Your task to perform on an android device: Open Chrome and go to settings Image 0: 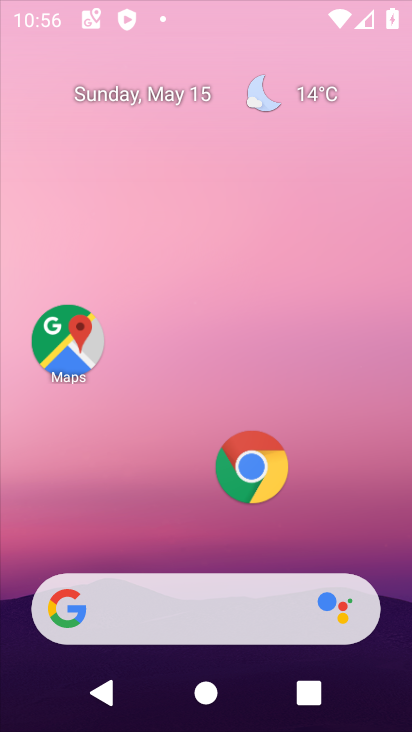
Step 0: drag from (225, 475) to (394, 378)
Your task to perform on an android device: Open Chrome and go to settings Image 1: 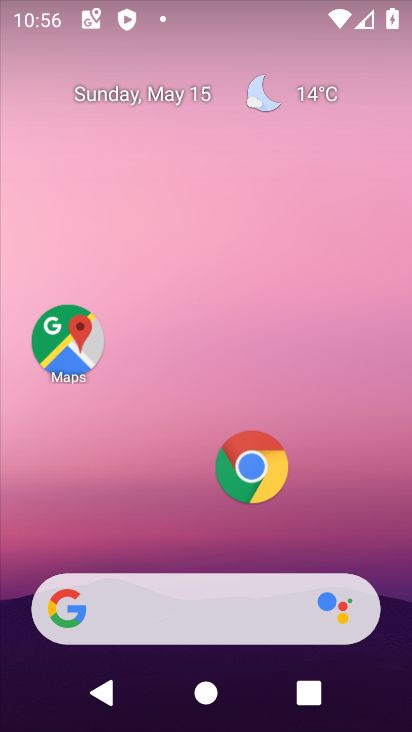
Step 1: drag from (218, 567) to (203, 136)
Your task to perform on an android device: Open Chrome and go to settings Image 2: 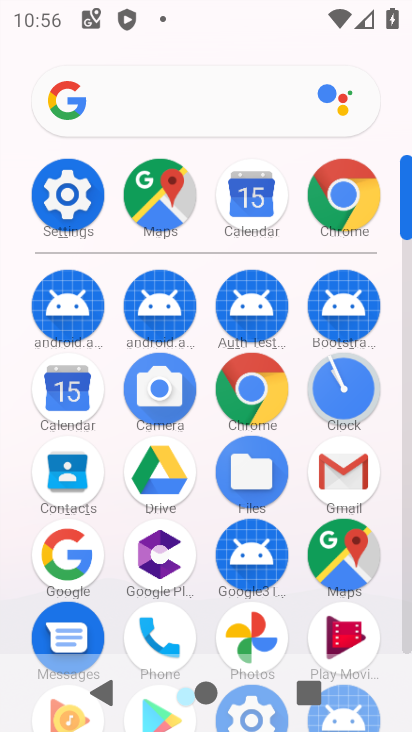
Step 2: click (339, 193)
Your task to perform on an android device: Open Chrome and go to settings Image 3: 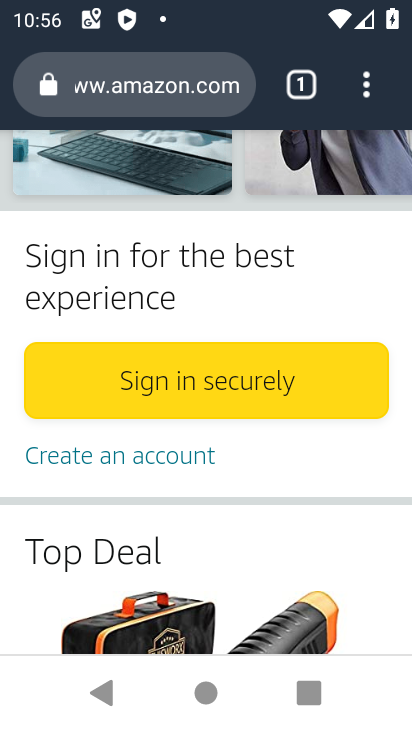
Step 3: drag from (362, 77) to (236, 520)
Your task to perform on an android device: Open Chrome and go to settings Image 4: 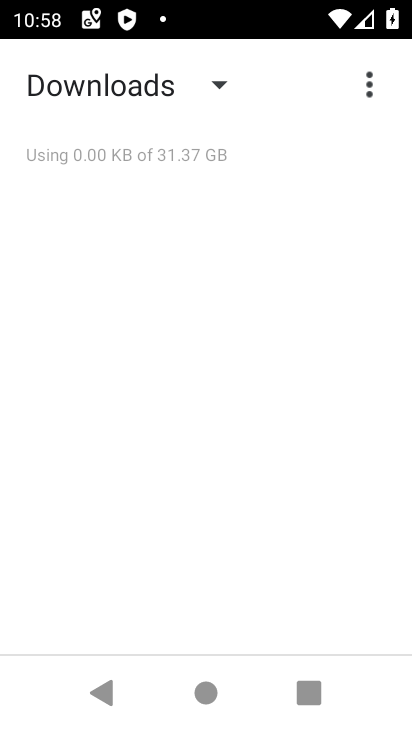
Step 4: press back button
Your task to perform on an android device: Open Chrome and go to settings Image 5: 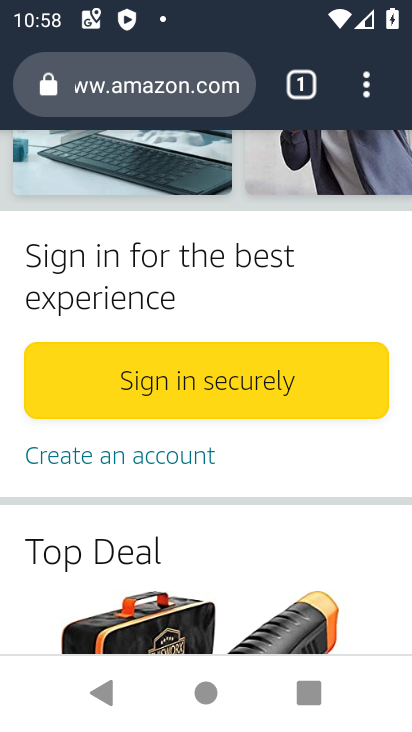
Step 5: click (352, 73)
Your task to perform on an android device: Open Chrome and go to settings Image 6: 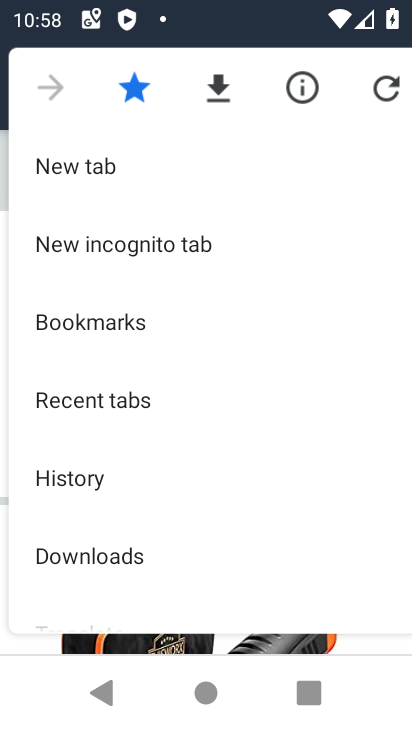
Step 6: drag from (212, 576) to (152, 98)
Your task to perform on an android device: Open Chrome and go to settings Image 7: 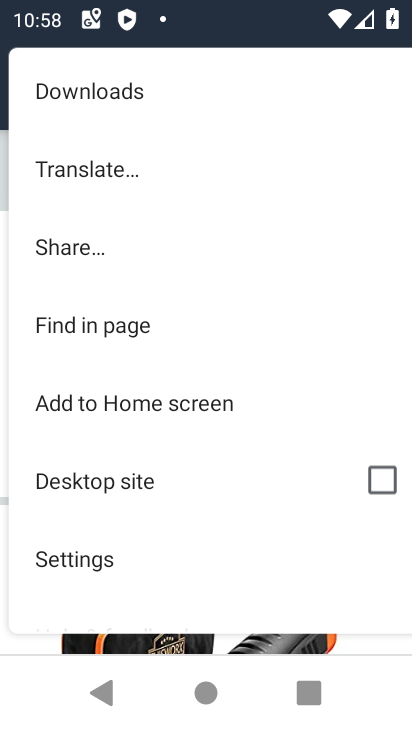
Step 7: click (146, 553)
Your task to perform on an android device: Open Chrome and go to settings Image 8: 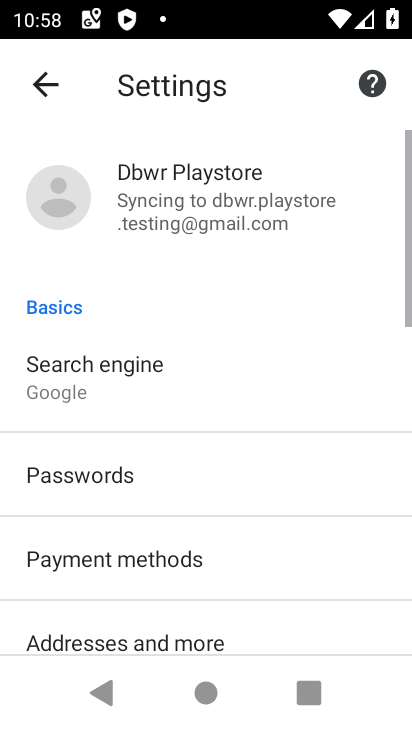
Step 8: task complete